Your task to perform on an android device: Go to network settings Image 0: 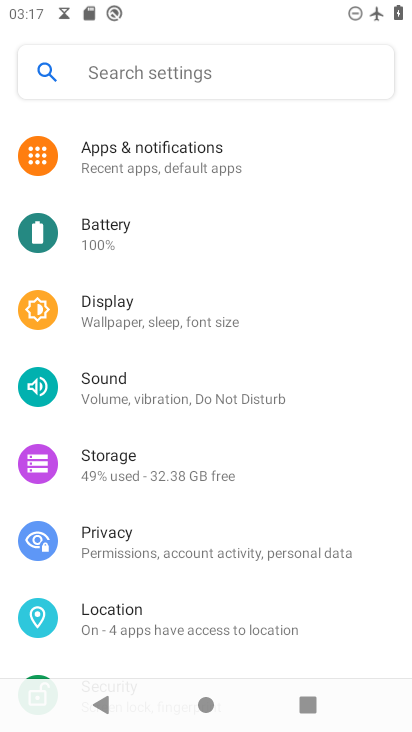
Step 0: click (233, 545)
Your task to perform on an android device: Go to network settings Image 1: 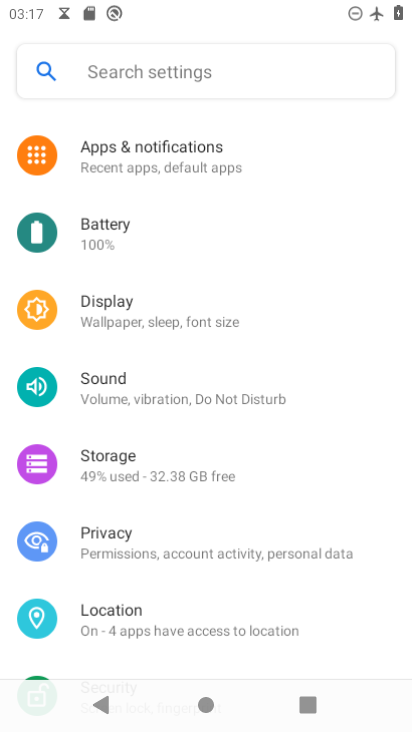
Step 1: drag from (218, 320) to (214, 662)
Your task to perform on an android device: Go to network settings Image 2: 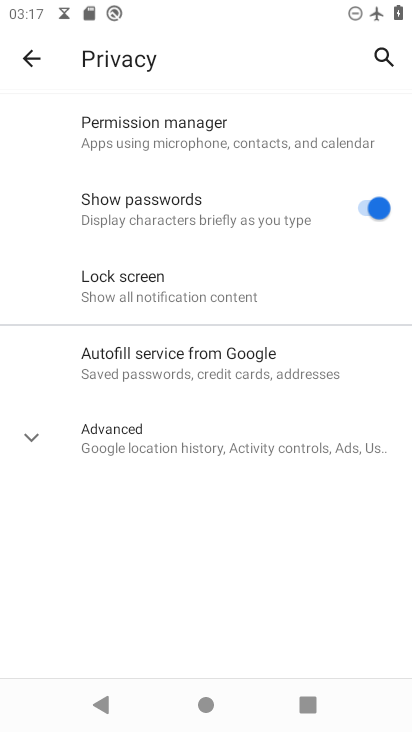
Step 2: click (39, 48)
Your task to perform on an android device: Go to network settings Image 3: 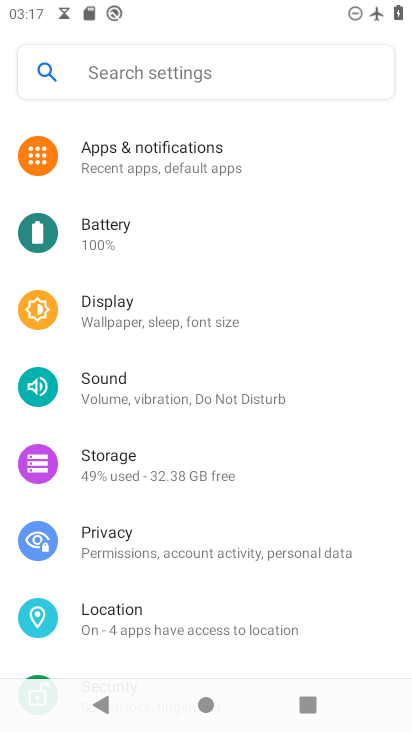
Step 3: drag from (278, 168) to (250, 578)
Your task to perform on an android device: Go to network settings Image 4: 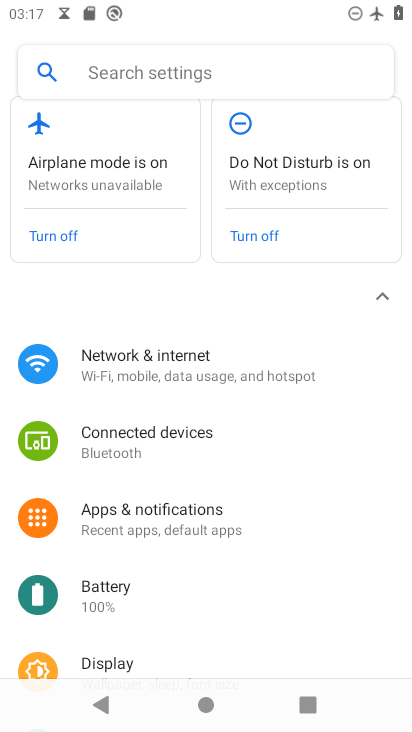
Step 4: click (228, 359)
Your task to perform on an android device: Go to network settings Image 5: 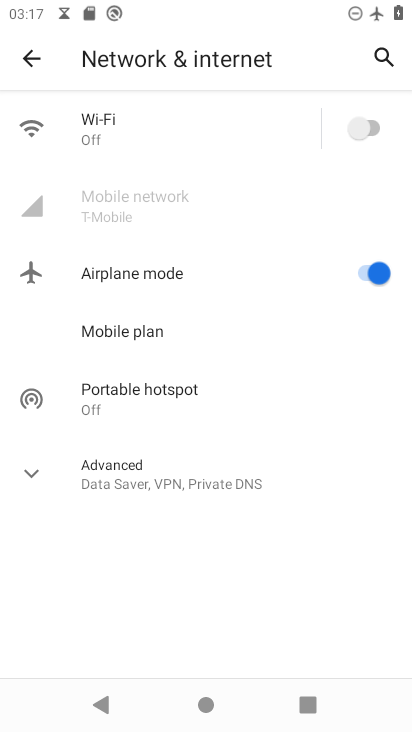
Step 5: task complete